Your task to perform on an android device: search for starred emails in the gmail app Image 0: 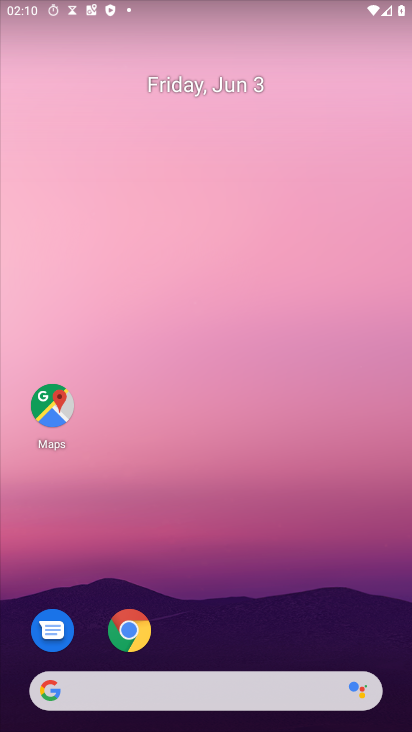
Step 0: drag from (246, 624) to (154, 146)
Your task to perform on an android device: search for starred emails in the gmail app Image 1: 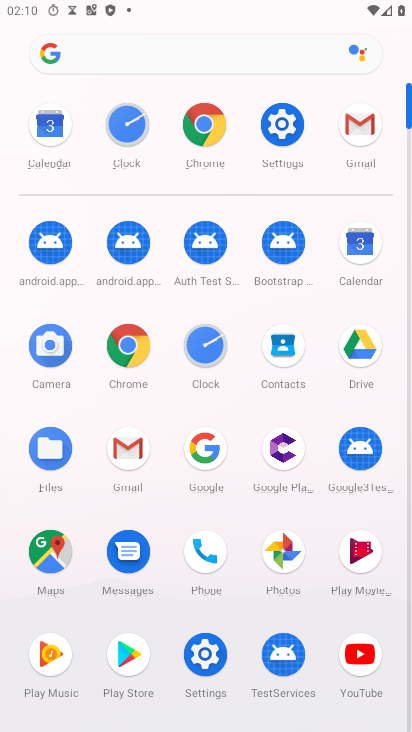
Step 1: click (366, 141)
Your task to perform on an android device: search for starred emails in the gmail app Image 2: 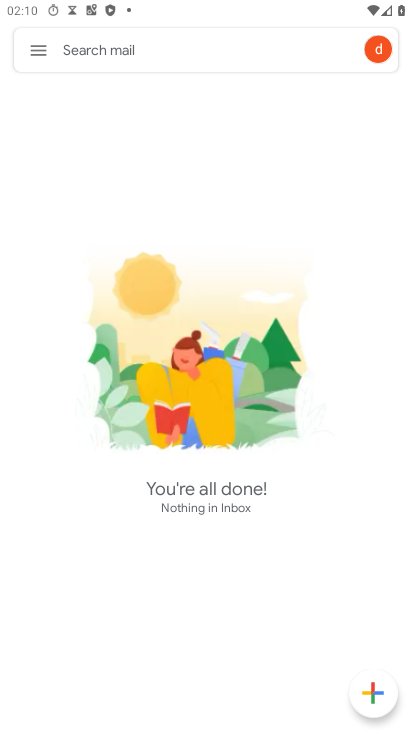
Step 2: click (43, 58)
Your task to perform on an android device: search for starred emails in the gmail app Image 3: 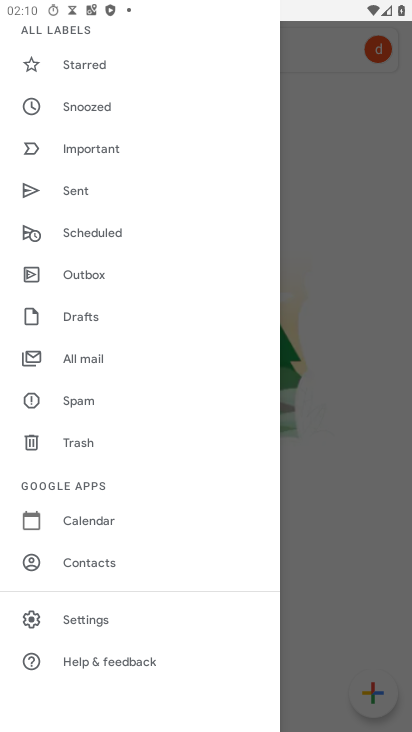
Step 3: drag from (108, 76) to (113, 324)
Your task to perform on an android device: search for starred emails in the gmail app Image 4: 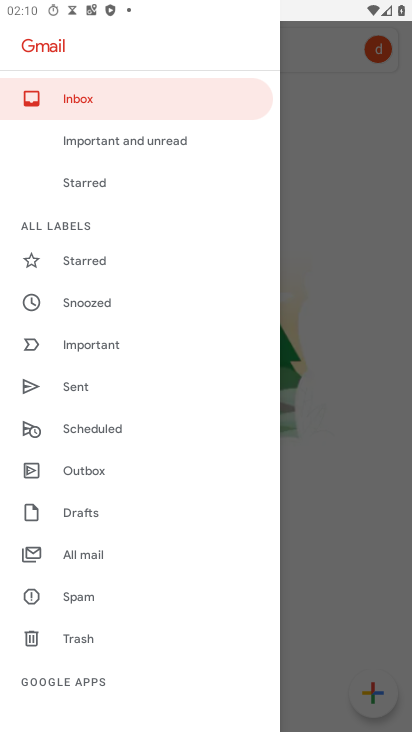
Step 4: click (100, 271)
Your task to perform on an android device: search for starred emails in the gmail app Image 5: 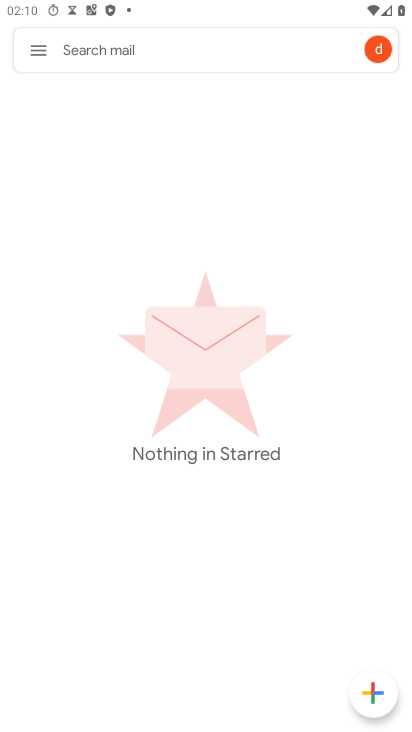
Step 5: task complete